Your task to perform on an android device: Open settings Image 0: 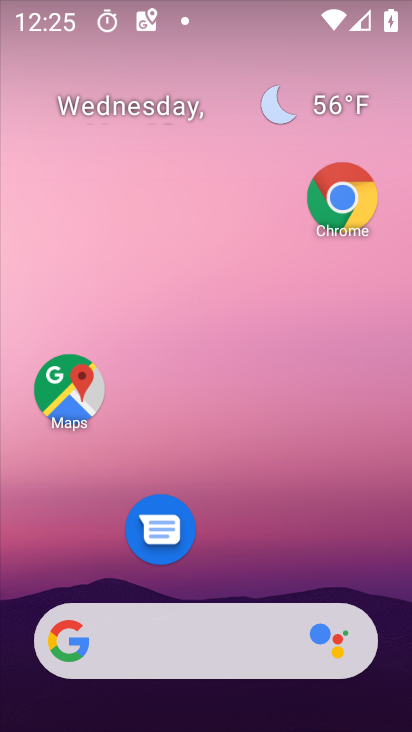
Step 0: drag from (192, 543) to (178, 56)
Your task to perform on an android device: Open settings Image 1: 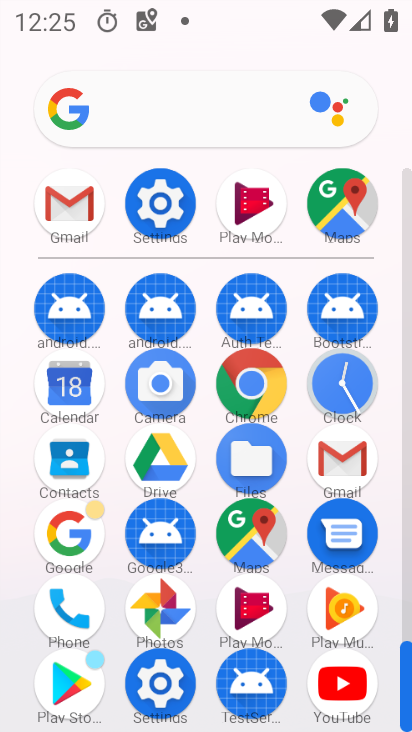
Step 1: click (180, 199)
Your task to perform on an android device: Open settings Image 2: 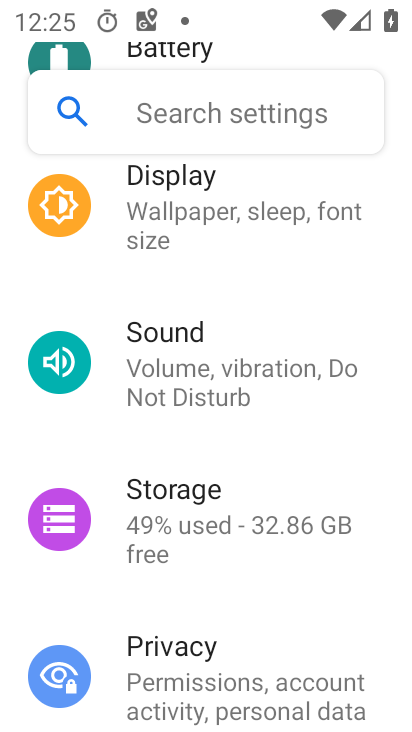
Step 2: task complete